Your task to perform on an android device: Is it going to rain today? Image 0: 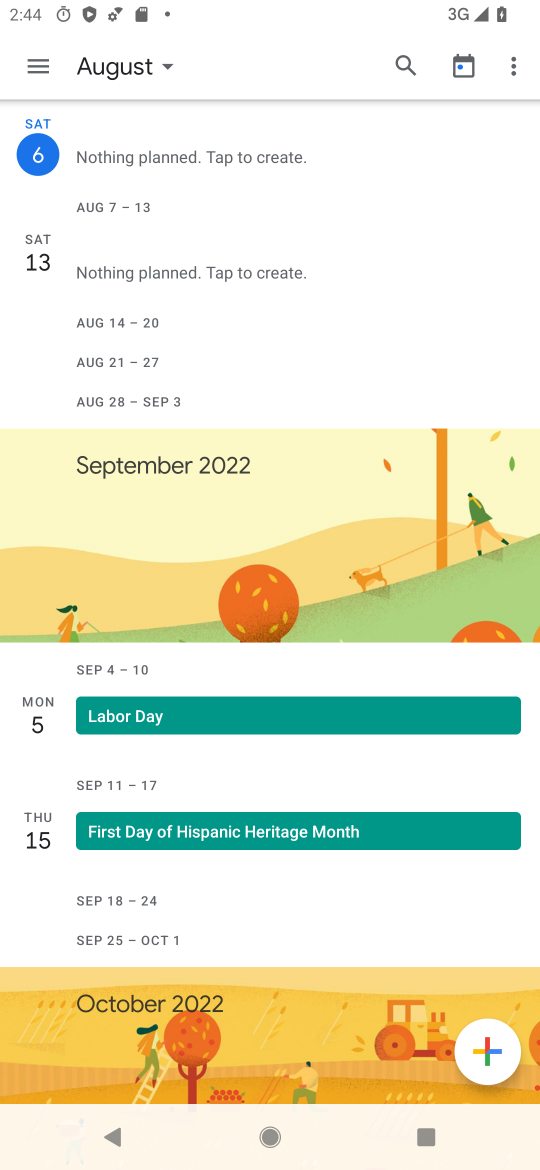
Step 0: press home button
Your task to perform on an android device: Is it going to rain today? Image 1: 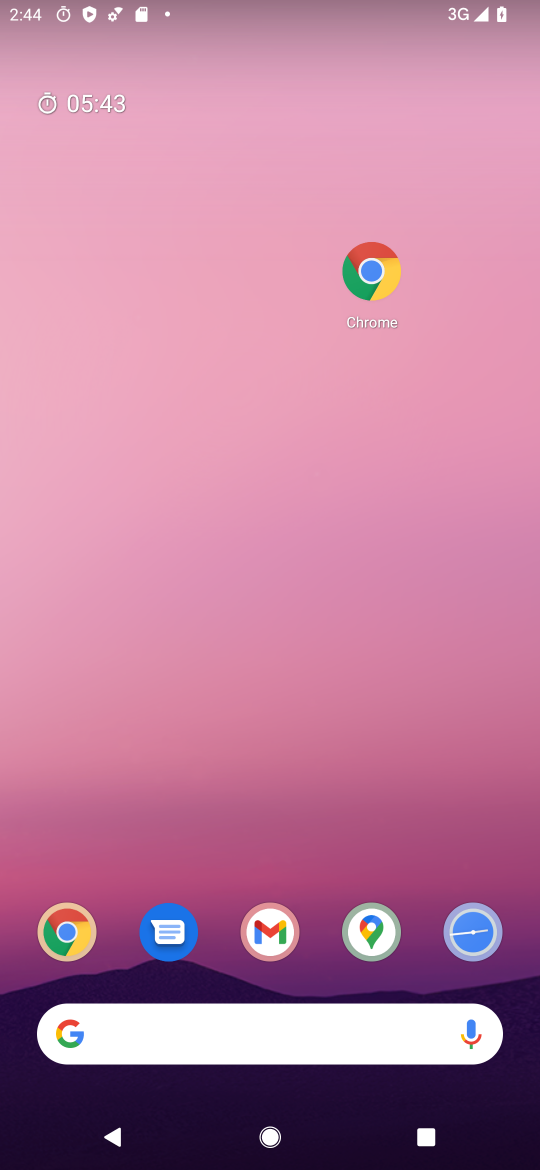
Step 1: drag from (405, 943) to (378, 213)
Your task to perform on an android device: Is it going to rain today? Image 2: 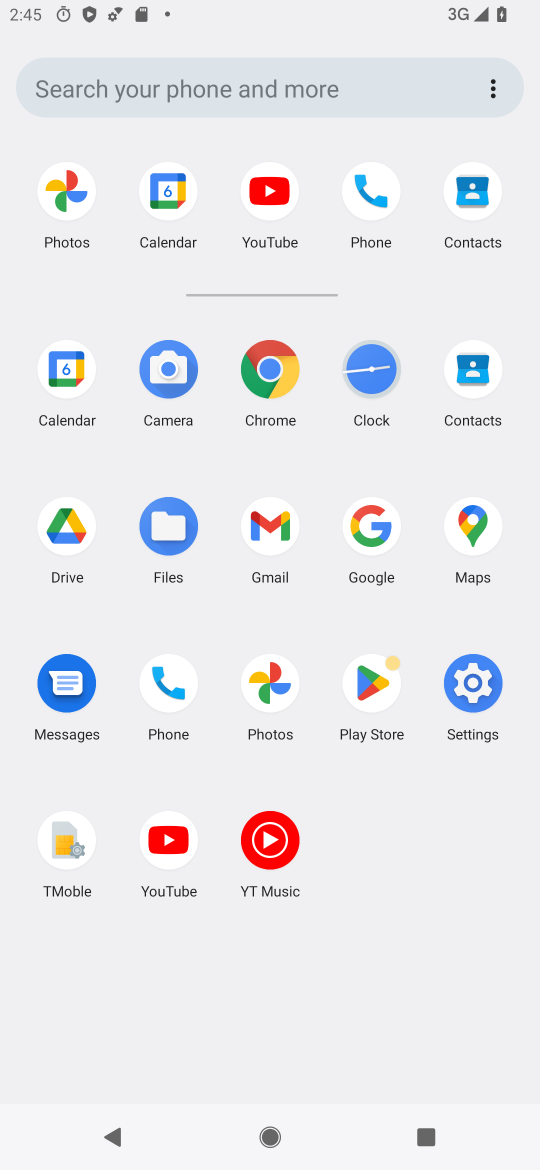
Step 2: click (255, 365)
Your task to perform on an android device: Is it going to rain today? Image 3: 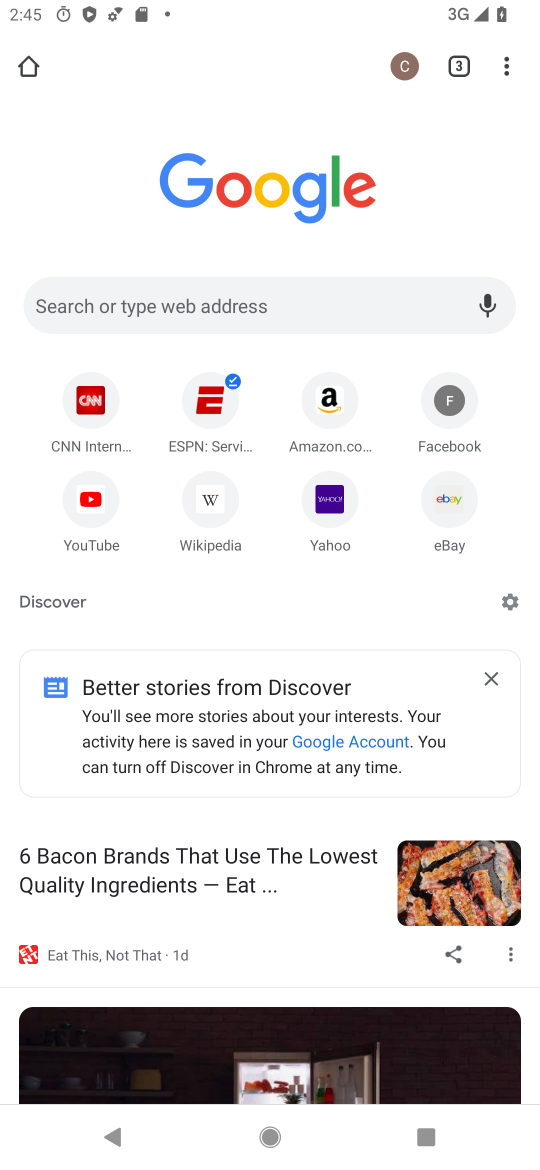
Step 3: click (102, 308)
Your task to perform on an android device: Is it going to rain today? Image 4: 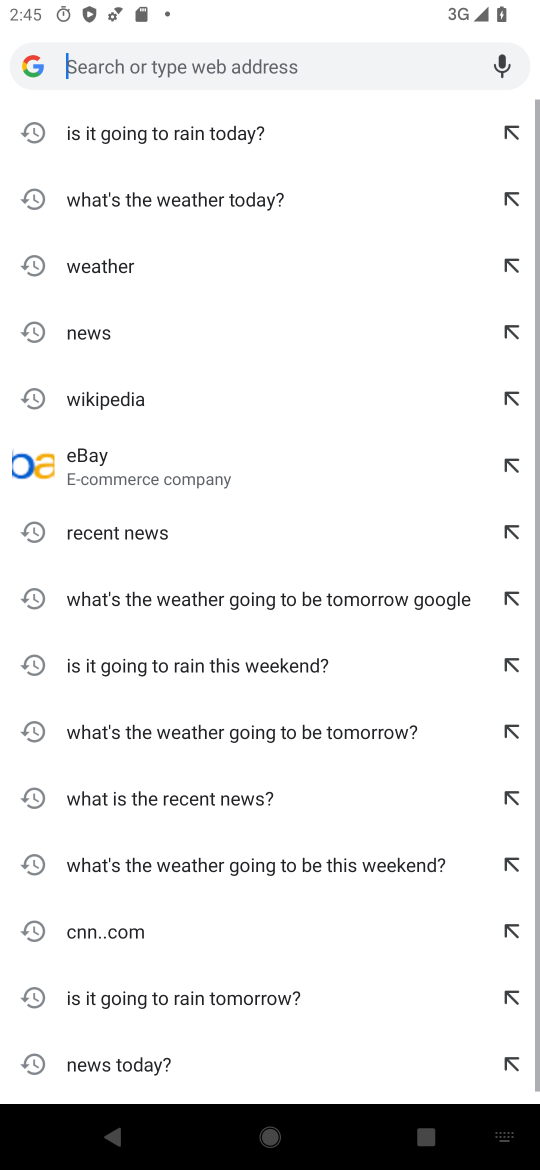
Step 4: drag from (248, 1169) to (450, 1082)
Your task to perform on an android device: Is it going to rain today? Image 5: 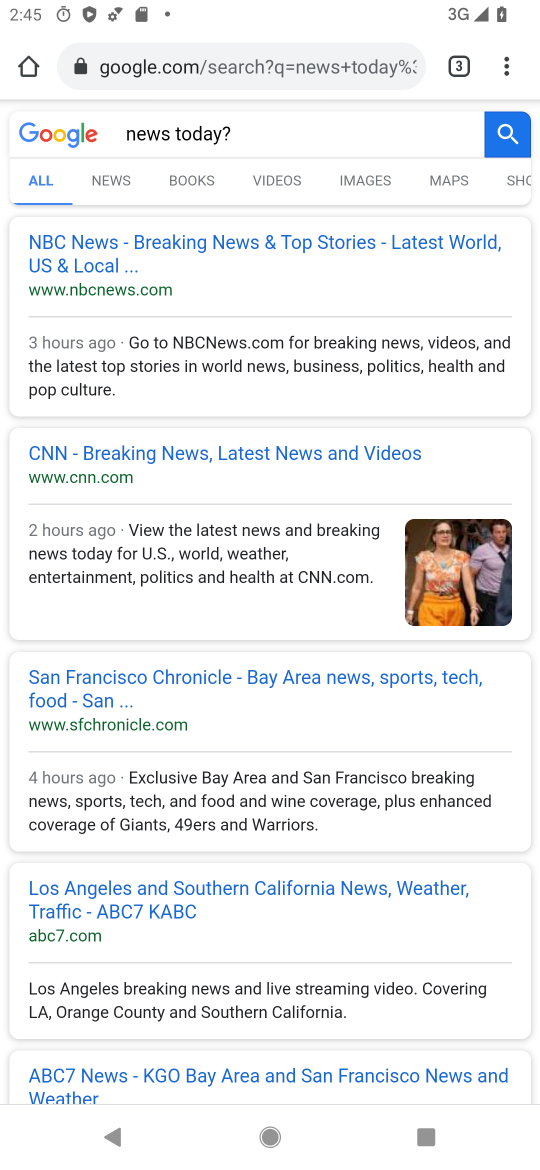
Step 5: click (163, 56)
Your task to perform on an android device: Is it going to rain today? Image 6: 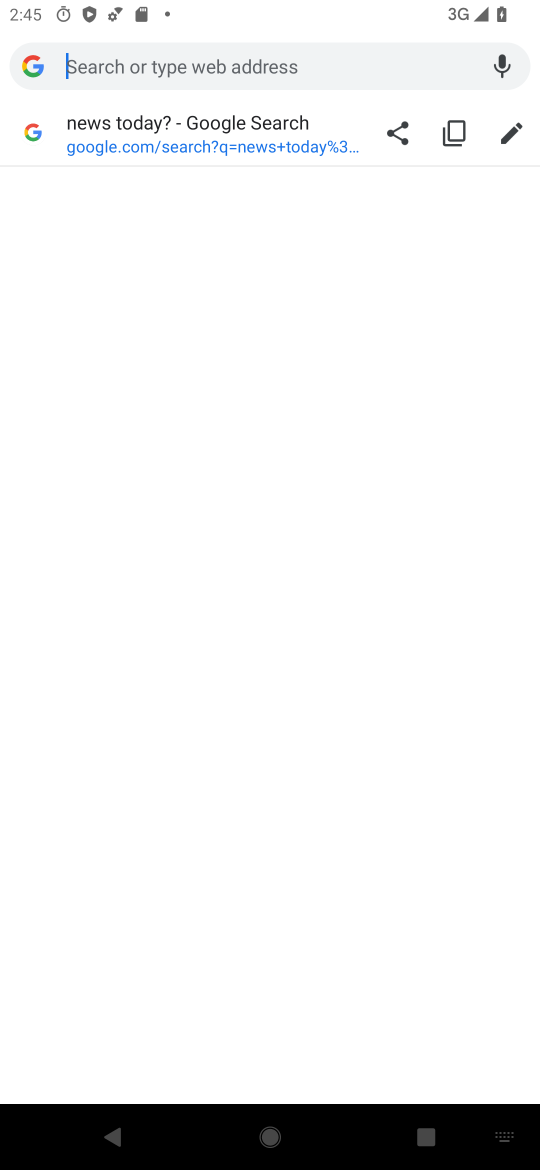
Step 6: type "is it going to rain today?"
Your task to perform on an android device: Is it going to rain today? Image 7: 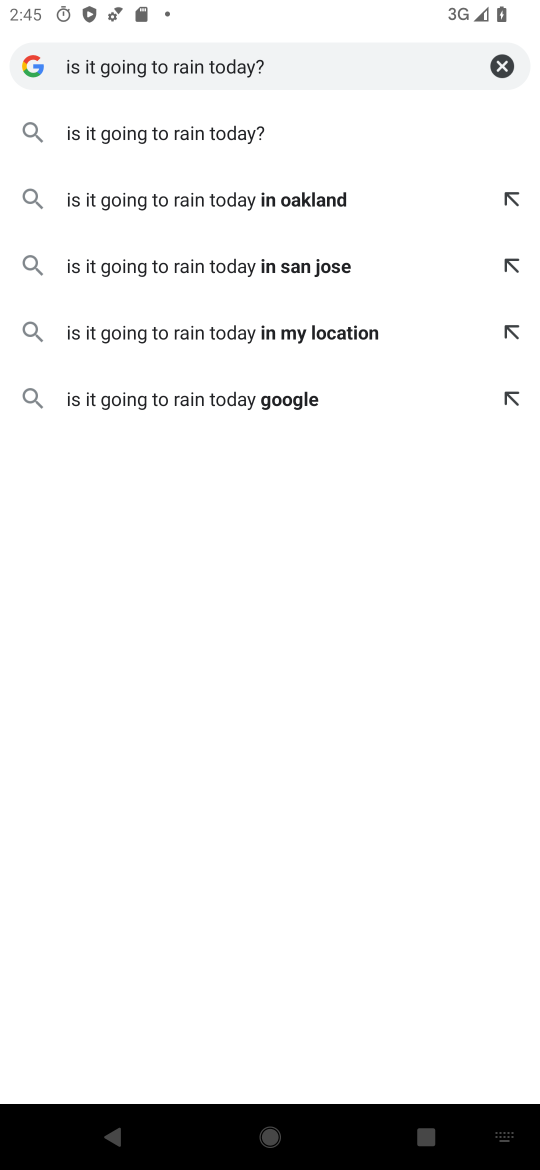
Step 7: click (112, 132)
Your task to perform on an android device: Is it going to rain today? Image 8: 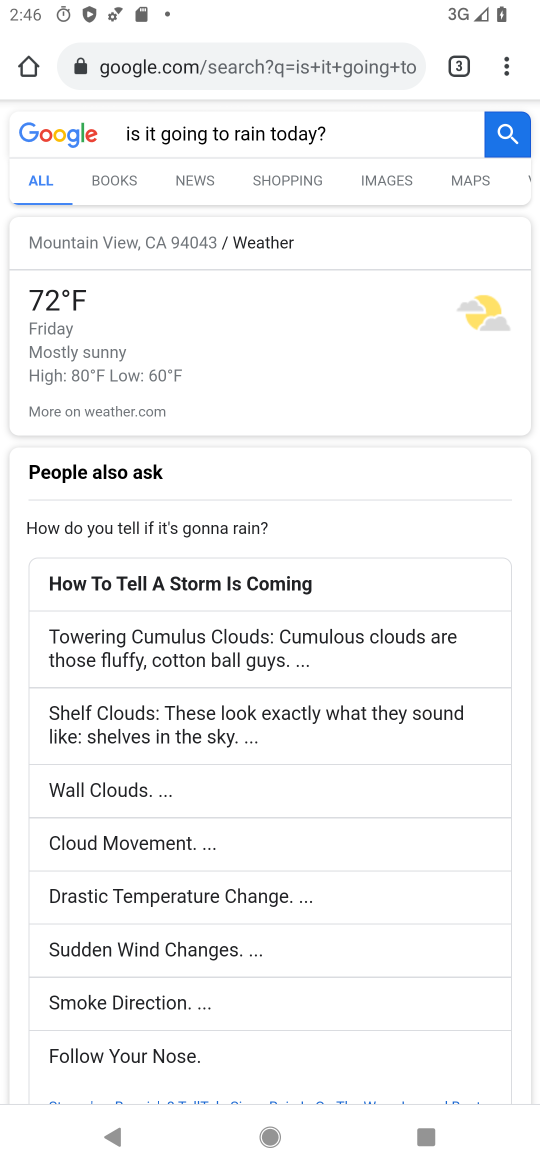
Step 8: task complete